Your task to perform on an android device: Open the phone app and click the voicemail tab. Image 0: 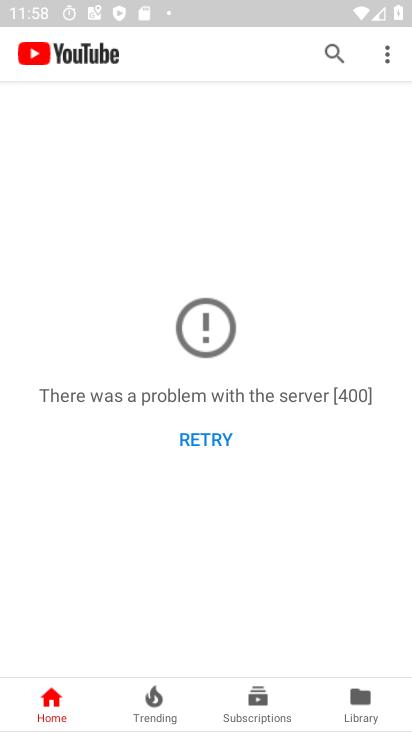
Step 0: press home button
Your task to perform on an android device: Open the phone app and click the voicemail tab. Image 1: 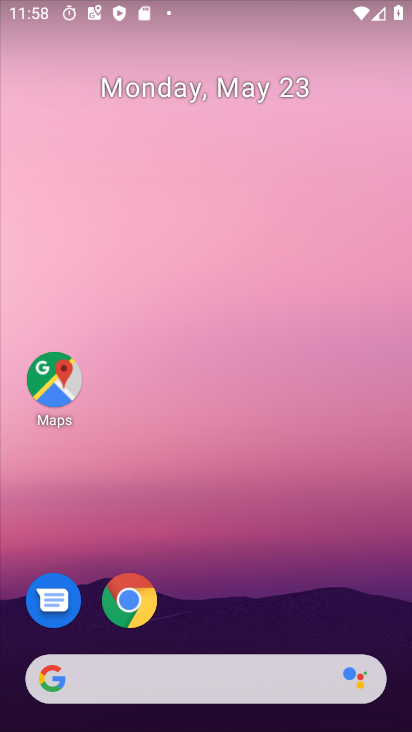
Step 1: drag from (274, 597) to (235, 94)
Your task to perform on an android device: Open the phone app and click the voicemail tab. Image 2: 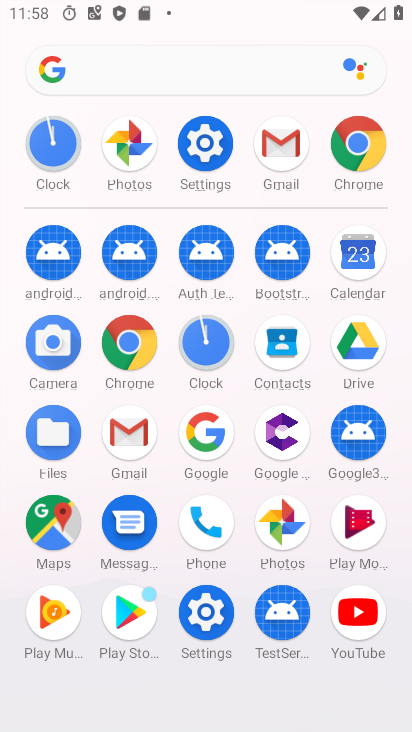
Step 2: click (202, 519)
Your task to perform on an android device: Open the phone app and click the voicemail tab. Image 3: 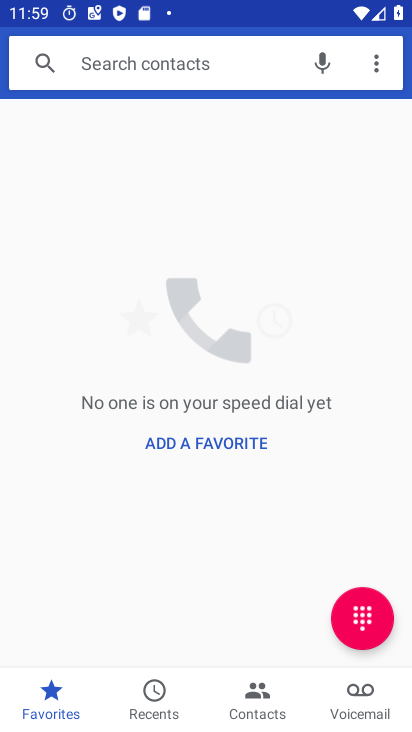
Step 3: click (353, 702)
Your task to perform on an android device: Open the phone app and click the voicemail tab. Image 4: 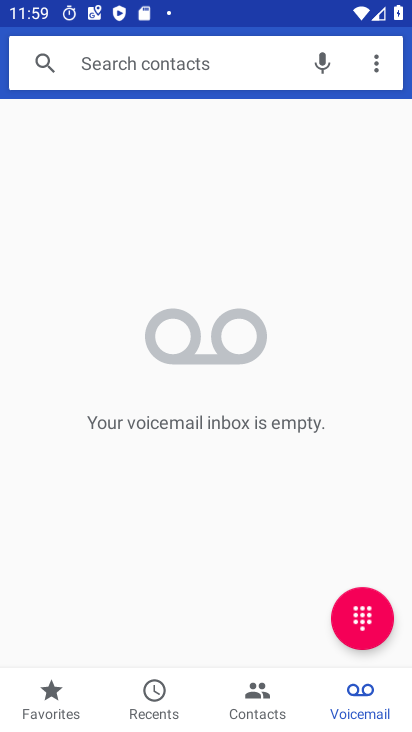
Step 4: task complete